Your task to perform on an android device: Do I have any events today? Image 0: 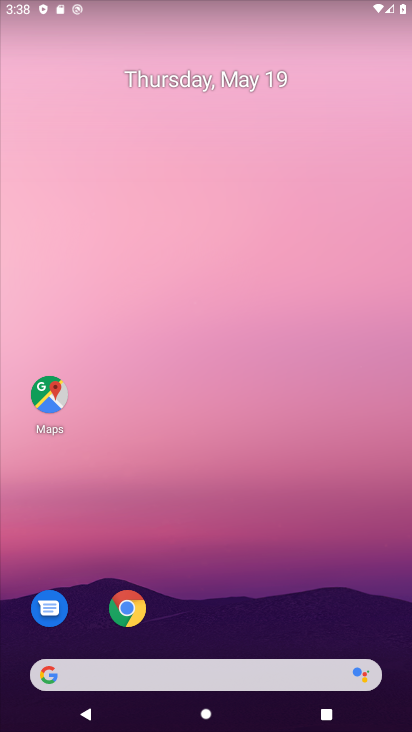
Step 0: drag from (238, 724) to (238, 143)
Your task to perform on an android device: Do I have any events today? Image 1: 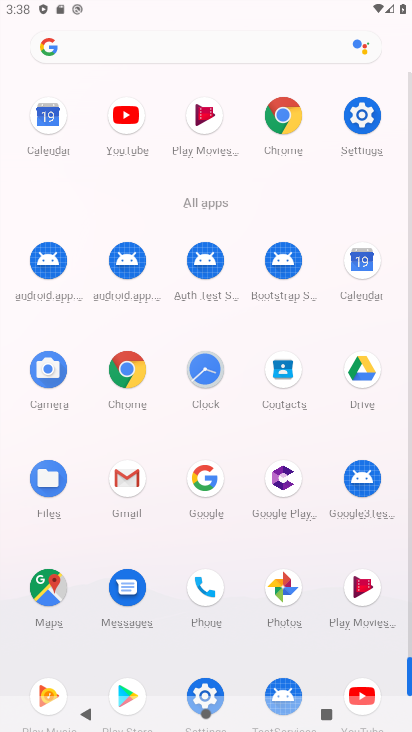
Step 1: click (367, 265)
Your task to perform on an android device: Do I have any events today? Image 2: 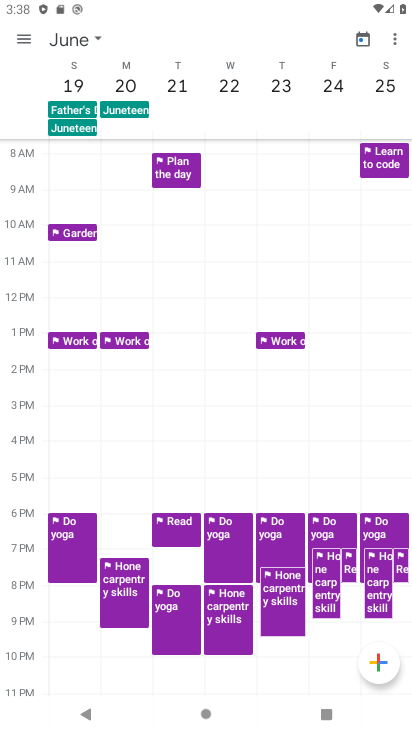
Step 2: click (97, 36)
Your task to perform on an android device: Do I have any events today? Image 3: 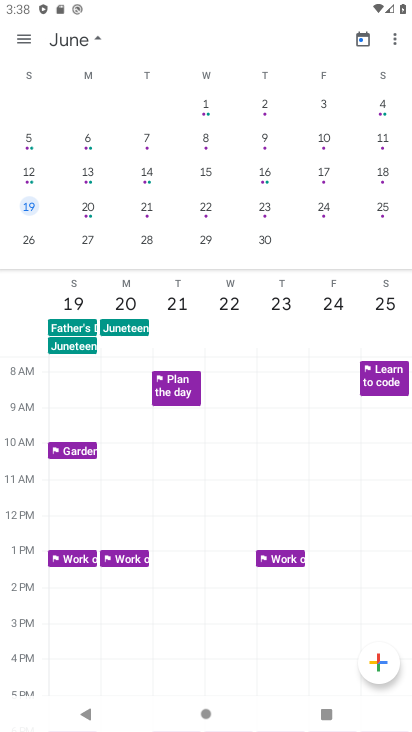
Step 3: drag from (57, 206) to (403, 198)
Your task to perform on an android device: Do I have any events today? Image 4: 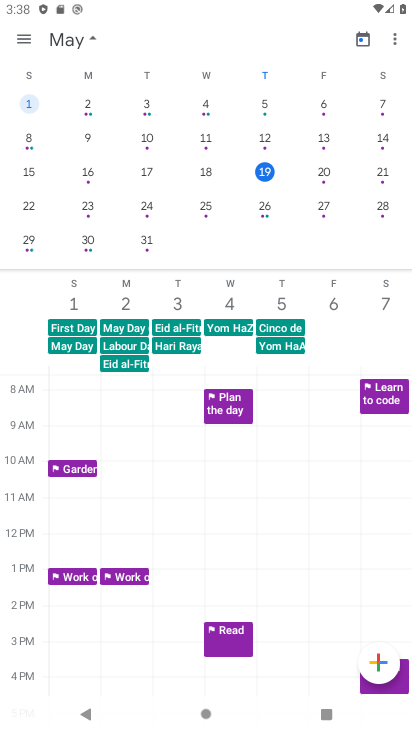
Step 4: click (264, 169)
Your task to perform on an android device: Do I have any events today? Image 5: 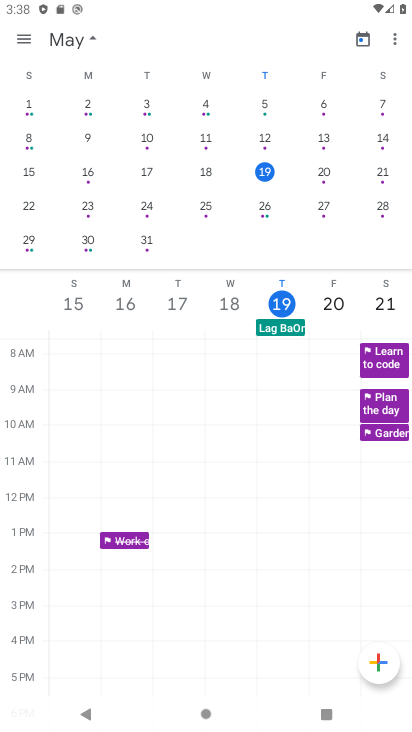
Step 5: click (263, 166)
Your task to perform on an android device: Do I have any events today? Image 6: 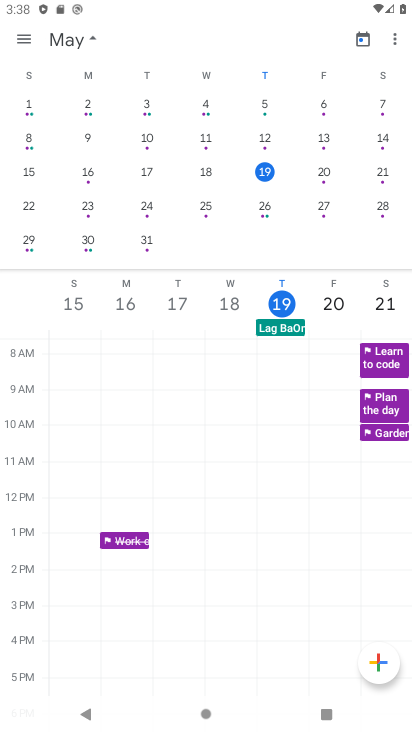
Step 6: click (279, 299)
Your task to perform on an android device: Do I have any events today? Image 7: 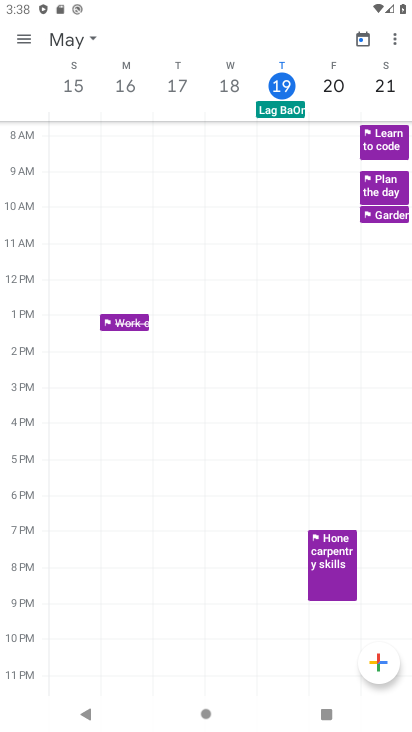
Step 7: click (281, 81)
Your task to perform on an android device: Do I have any events today? Image 8: 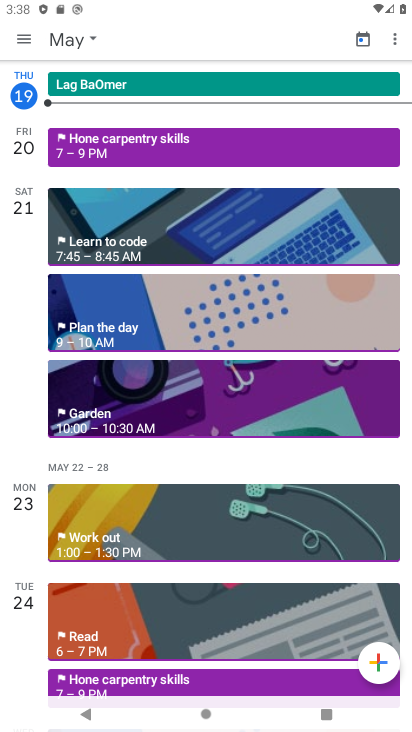
Step 8: task complete